Your task to perform on an android device: turn off priority inbox in the gmail app Image 0: 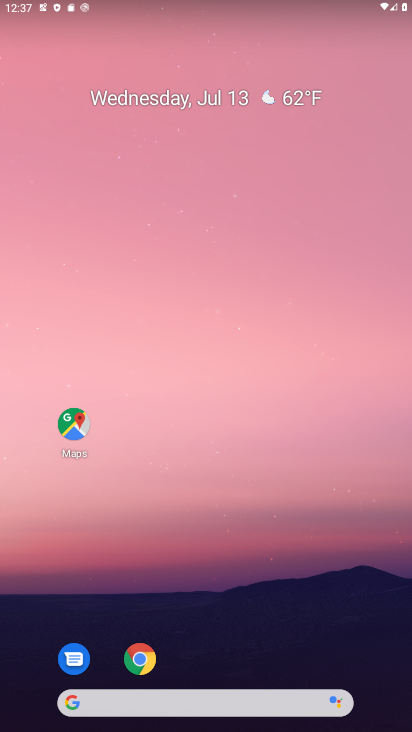
Step 0: click (136, 657)
Your task to perform on an android device: turn off priority inbox in the gmail app Image 1: 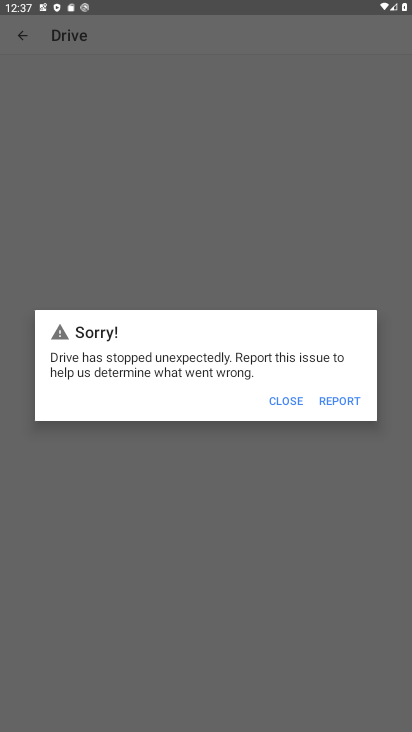
Step 1: press home button
Your task to perform on an android device: turn off priority inbox in the gmail app Image 2: 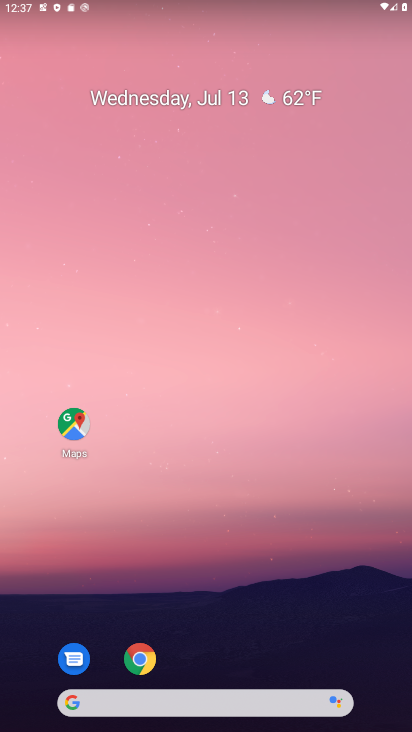
Step 2: drag from (243, 731) to (234, 297)
Your task to perform on an android device: turn off priority inbox in the gmail app Image 3: 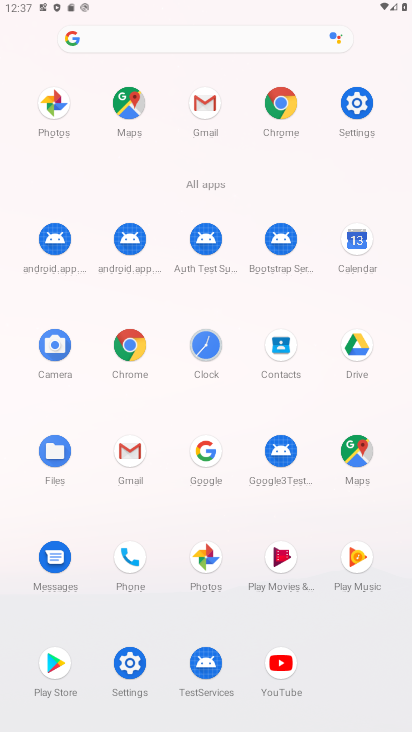
Step 3: click (210, 106)
Your task to perform on an android device: turn off priority inbox in the gmail app Image 4: 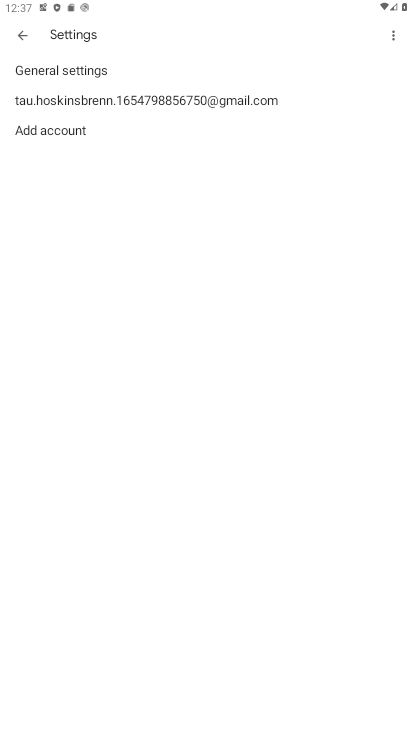
Step 4: click (95, 102)
Your task to perform on an android device: turn off priority inbox in the gmail app Image 5: 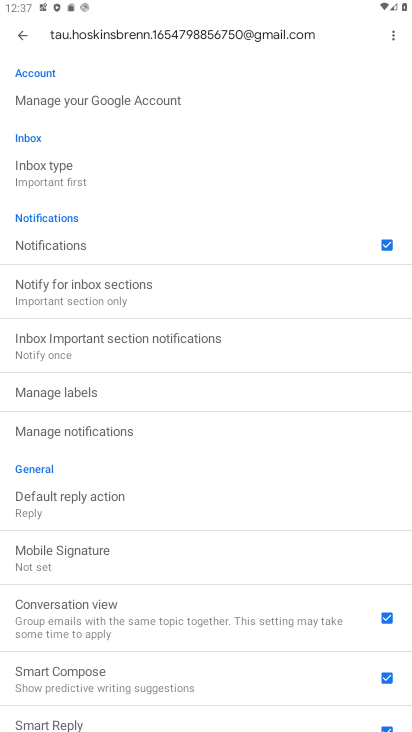
Step 5: click (53, 165)
Your task to perform on an android device: turn off priority inbox in the gmail app Image 6: 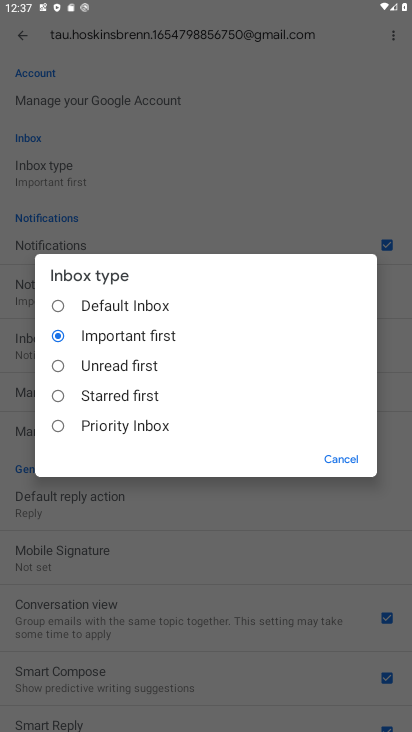
Step 6: task complete